Your task to perform on an android device: Check the news Image 0: 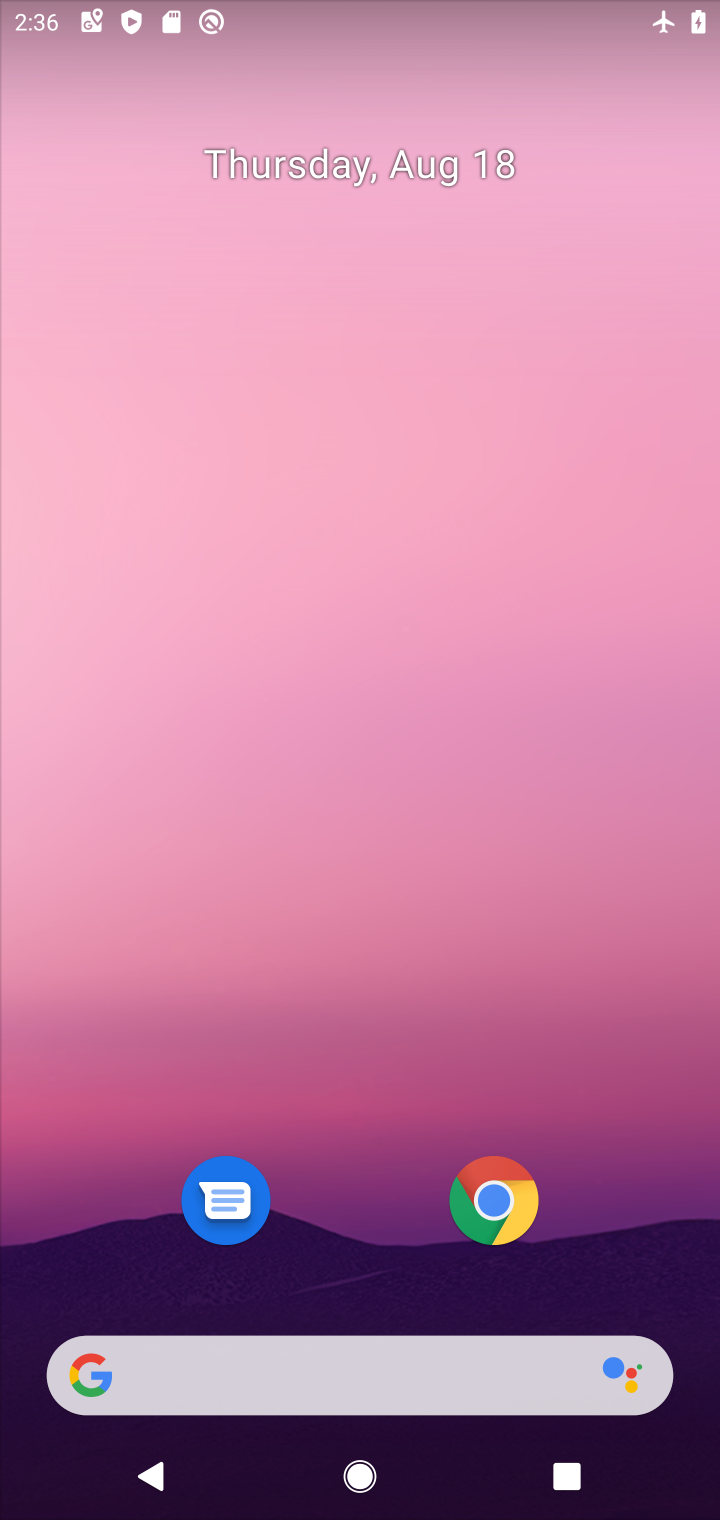
Step 0: drag from (360, 1116) to (501, 159)
Your task to perform on an android device: Check the news Image 1: 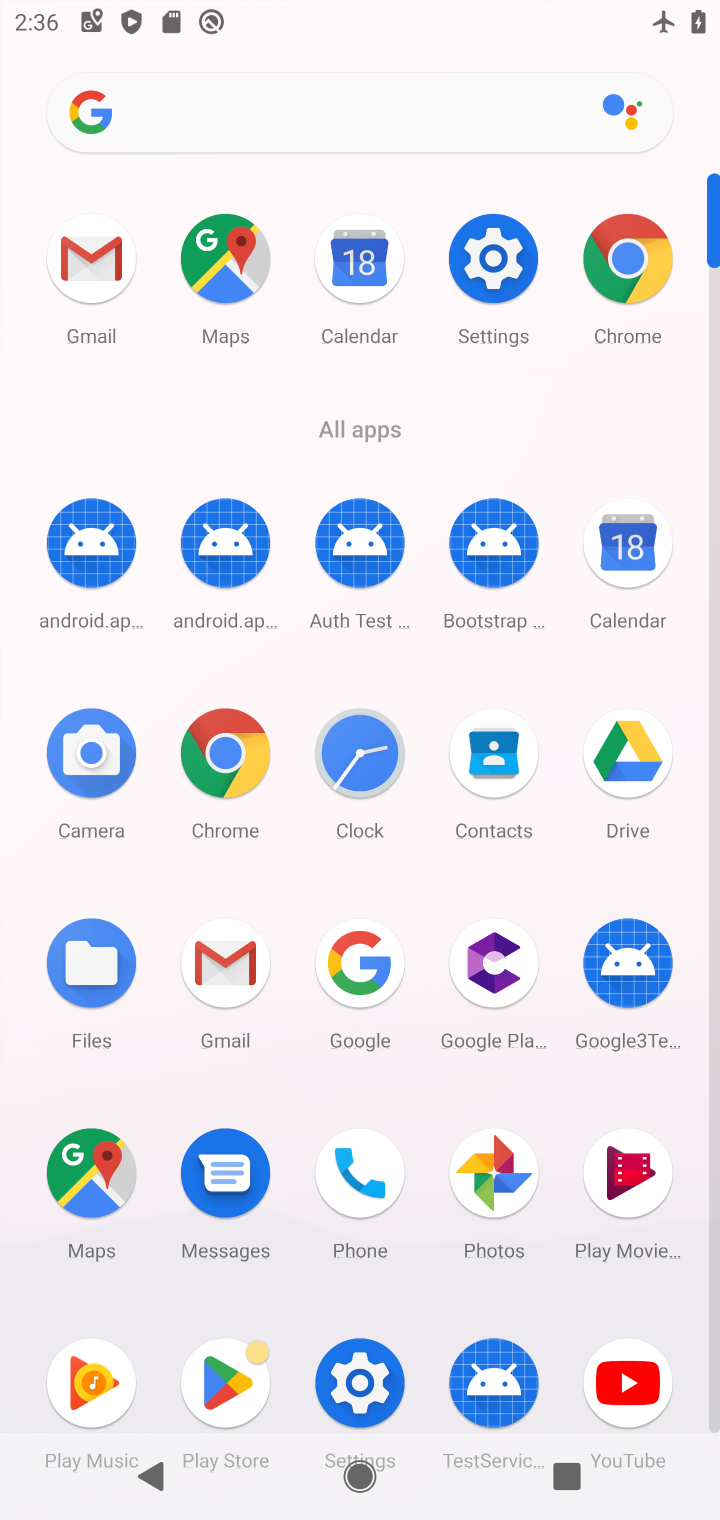
Step 1: click (222, 731)
Your task to perform on an android device: Check the news Image 2: 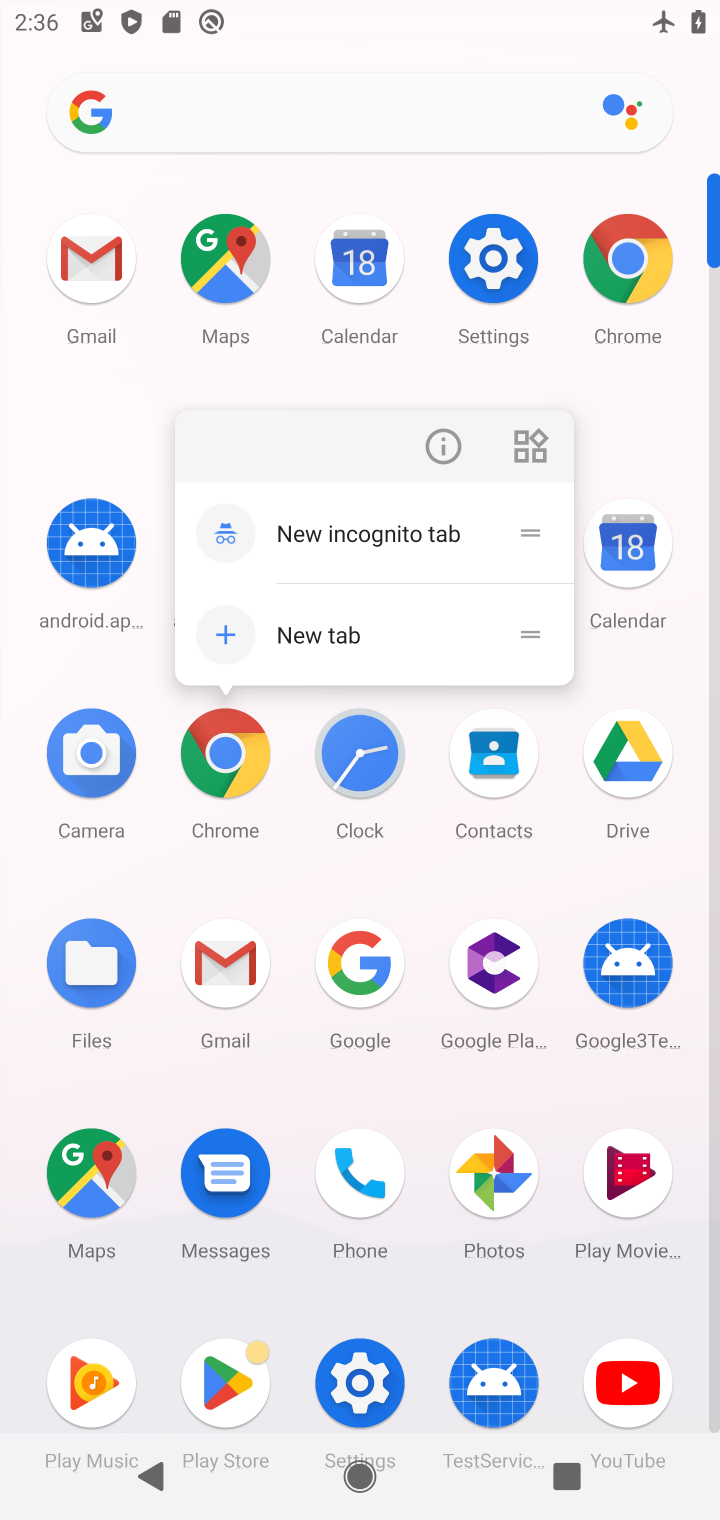
Step 2: click (225, 727)
Your task to perform on an android device: Check the news Image 3: 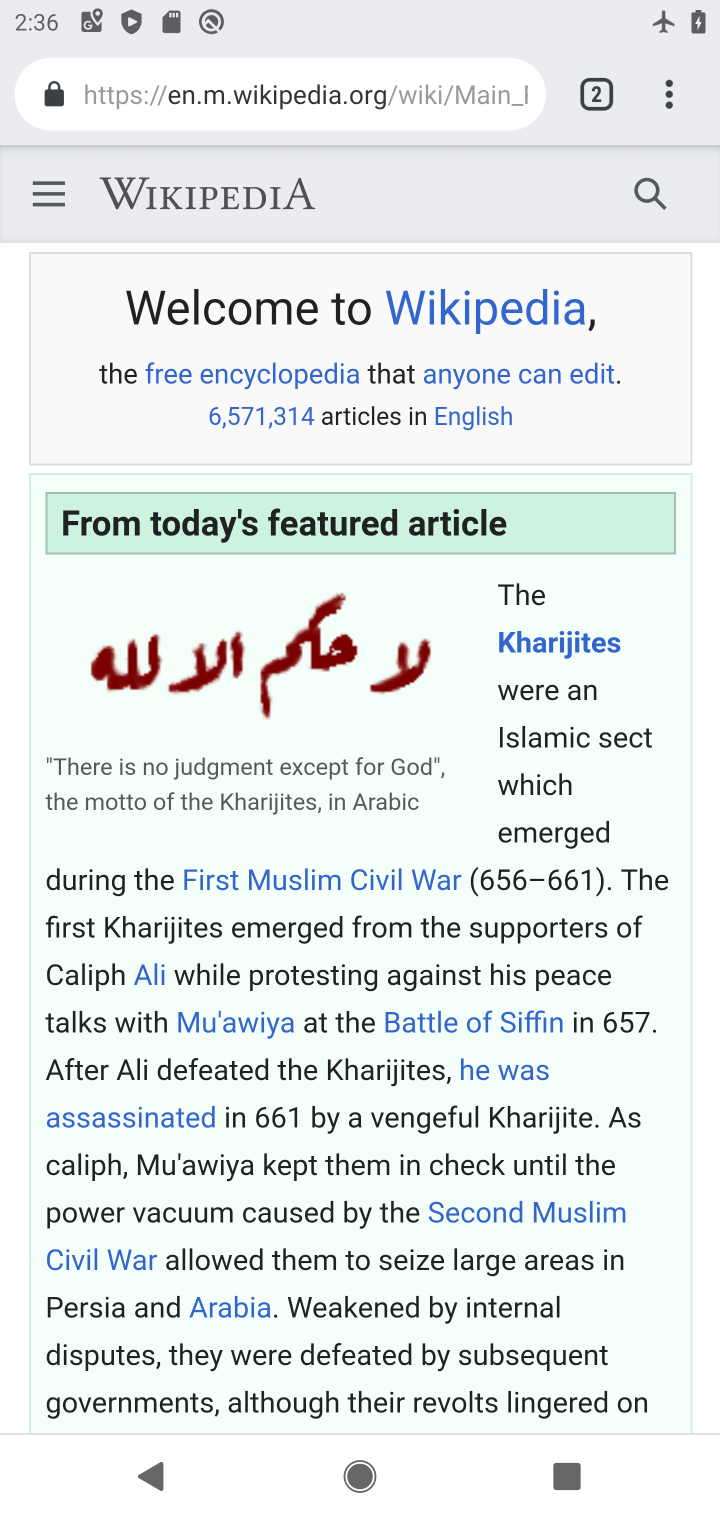
Step 3: click (317, 73)
Your task to perform on an android device: Check the news Image 4: 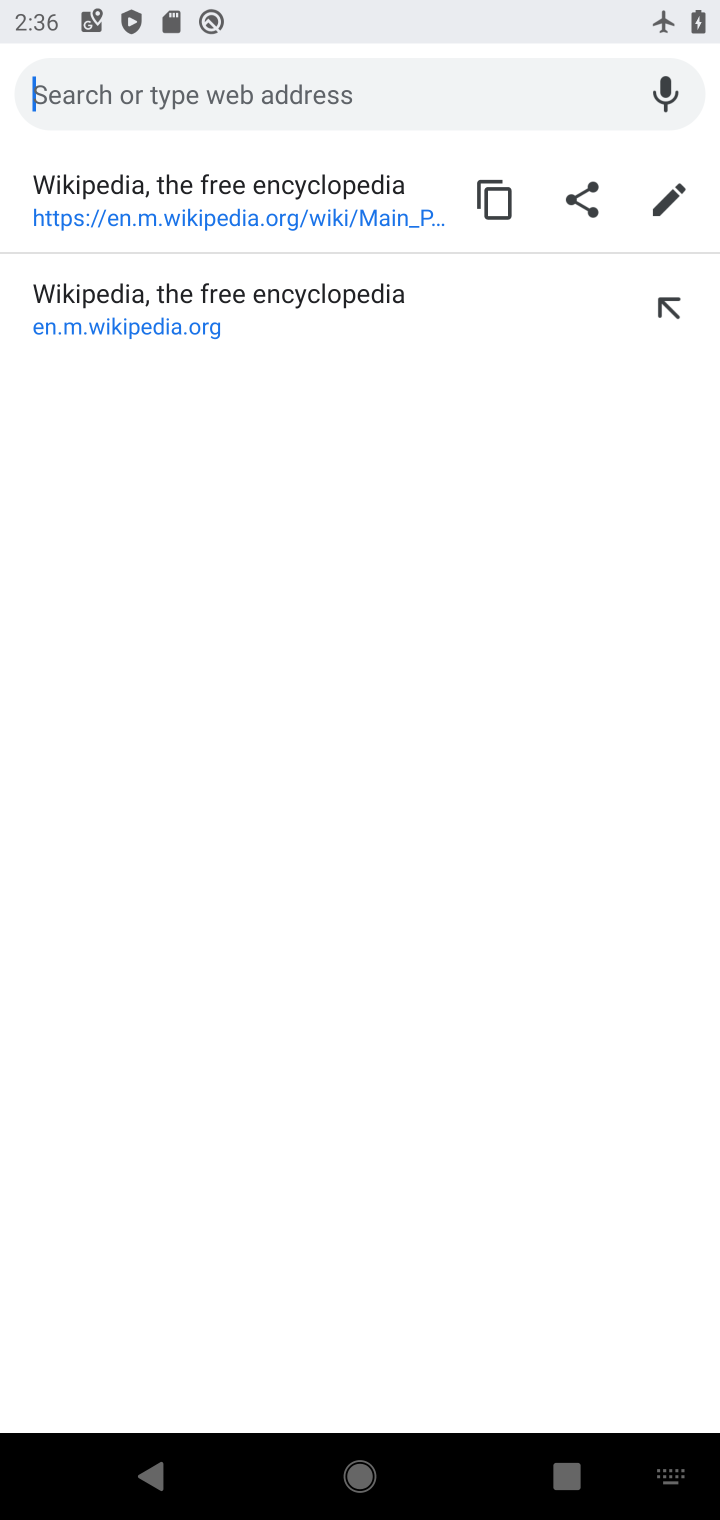
Step 4: type "news"
Your task to perform on an android device: Check the news Image 5: 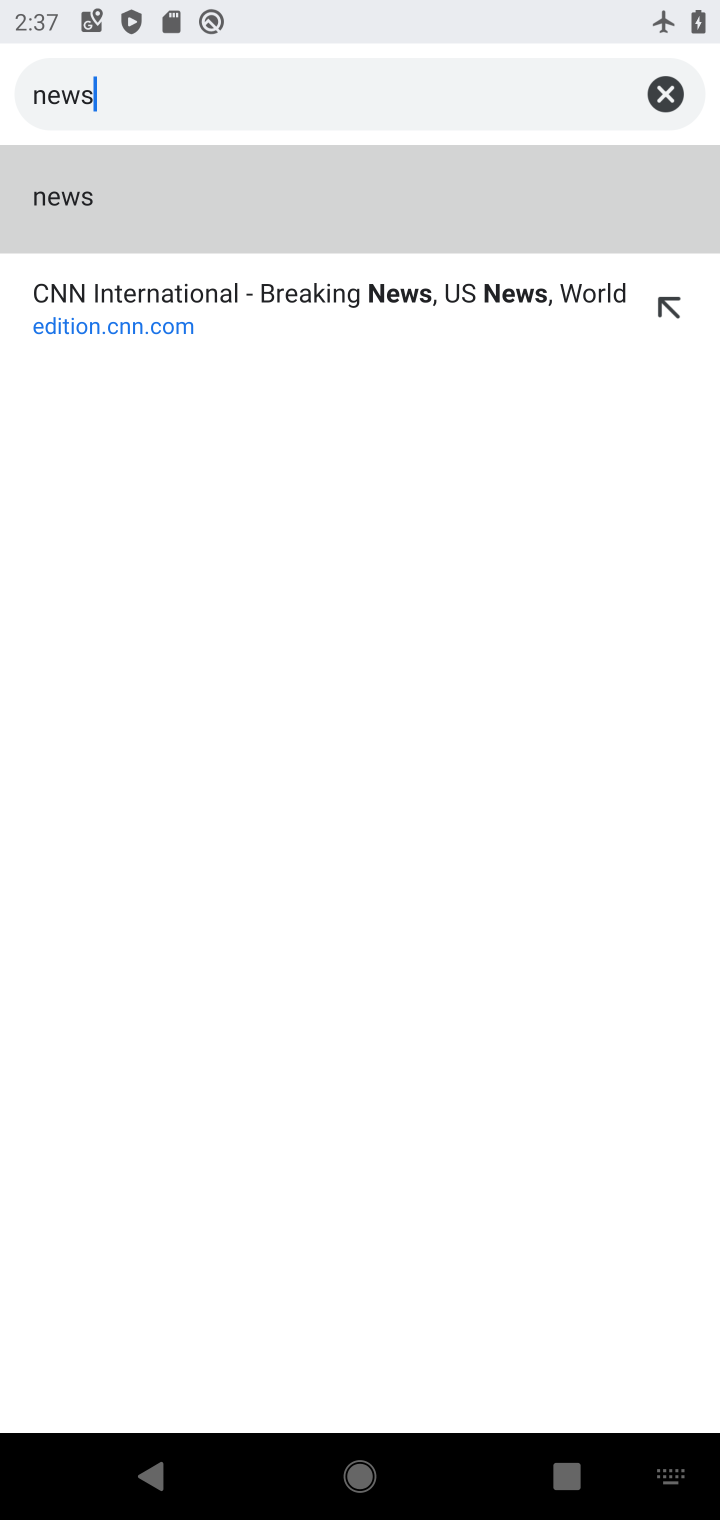
Step 5: click (77, 191)
Your task to perform on an android device: Check the news Image 6: 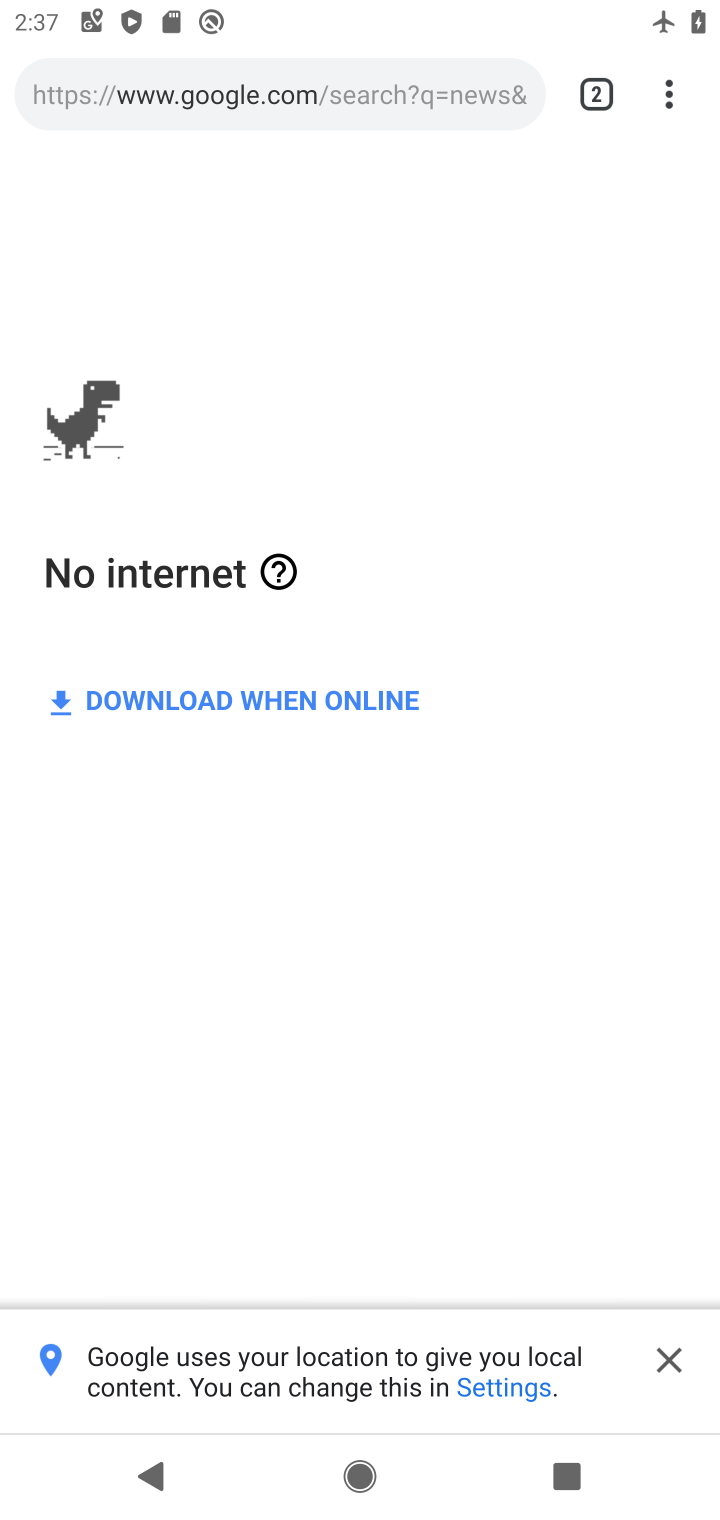
Step 6: task complete